Your task to perform on an android device: Go to settings Image 0: 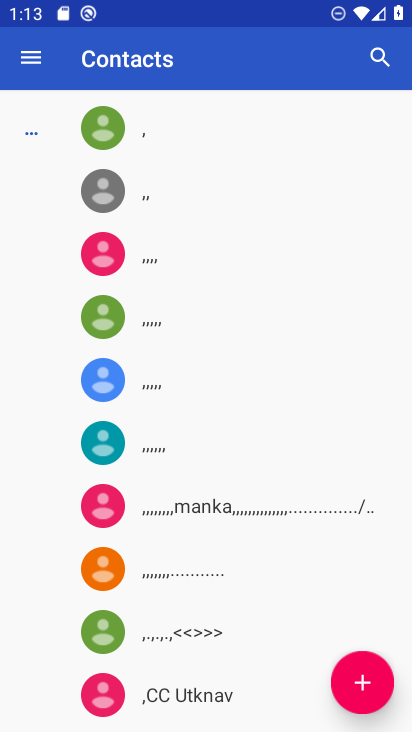
Step 0: press home button
Your task to perform on an android device: Go to settings Image 1: 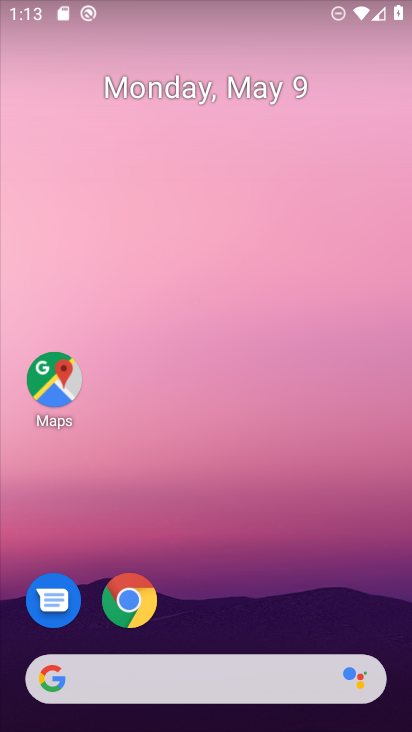
Step 1: drag from (167, 679) to (294, 152)
Your task to perform on an android device: Go to settings Image 2: 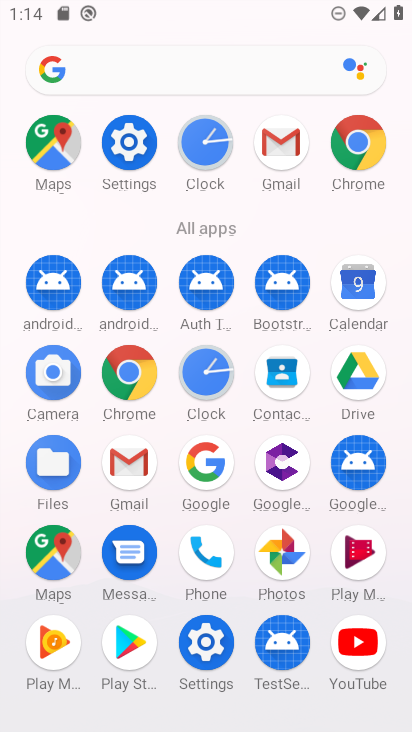
Step 2: click (133, 154)
Your task to perform on an android device: Go to settings Image 3: 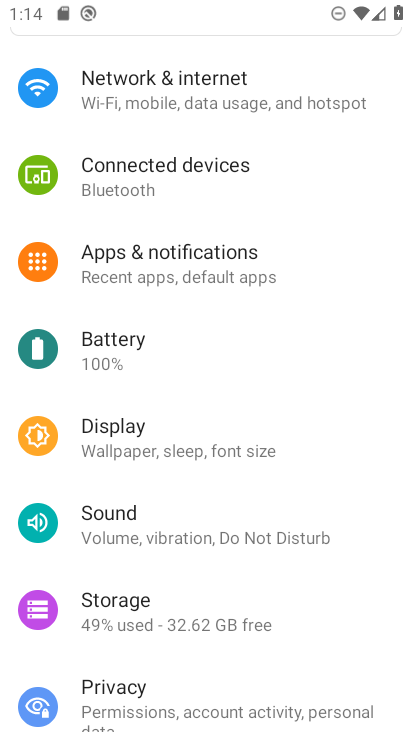
Step 3: task complete